Your task to perform on an android device: turn pop-ups on in chrome Image 0: 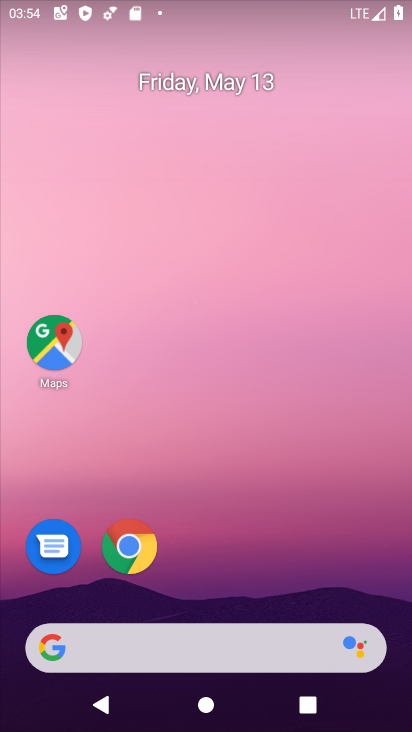
Step 0: click (128, 548)
Your task to perform on an android device: turn pop-ups on in chrome Image 1: 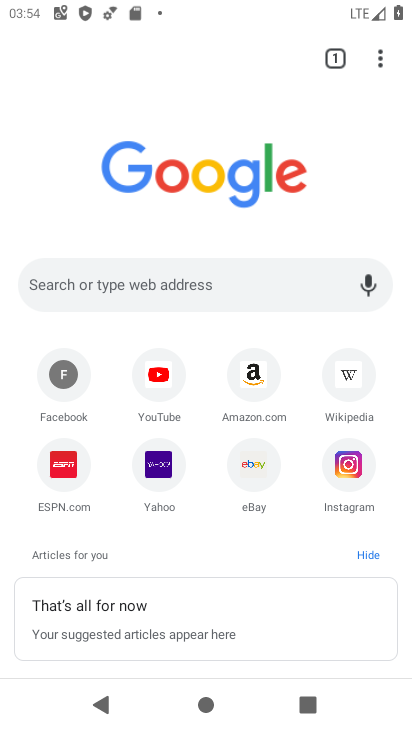
Step 1: click (370, 55)
Your task to perform on an android device: turn pop-ups on in chrome Image 2: 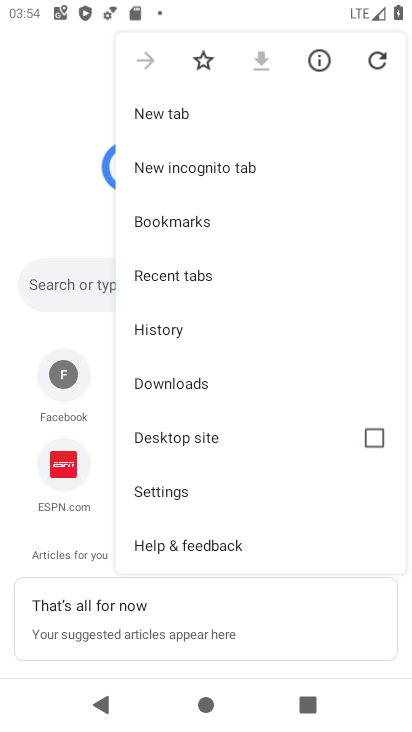
Step 2: click (190, 483)
Your task to perform on an android device: turn pop-ups on in chrome Image 3: 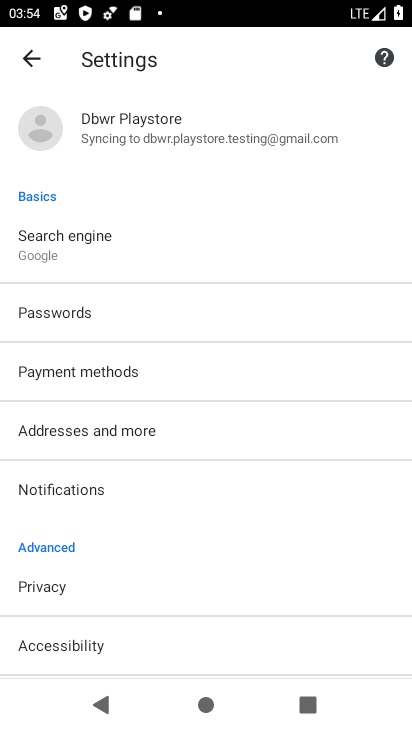
Step 3: drag from (144, 632) to (286, 73)
Your task to perform on an android device: turn pop-ups on in chrome Image 4: 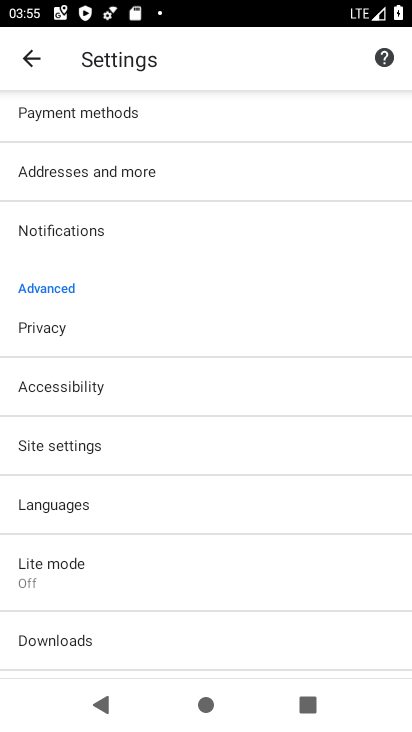
Step 4: click (123, 444)
Your task to perform on an android device: turn pop-ups on in chrome Image 5: 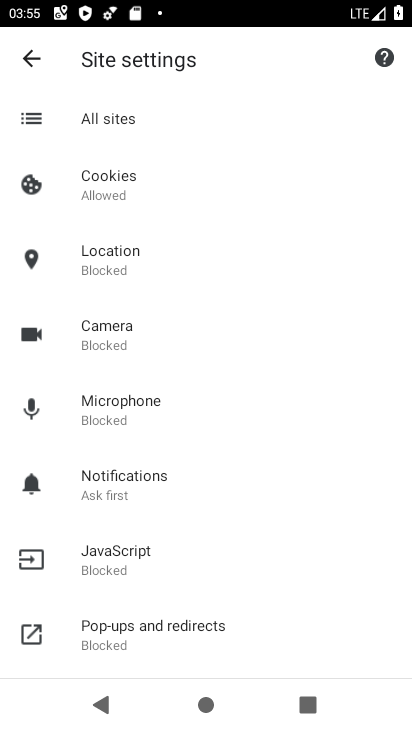
Step 5: drag from (54, 580) to (104, 196)
Your task to perform on an android device: turn pop-ups on in chrome Image 6: 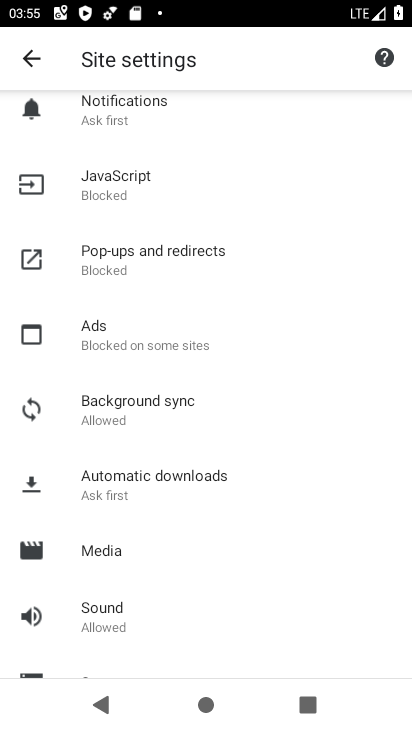
Step 6: click (154, 267)
Your task to perform on an android device: turn pop-ups on in chrome Image 7: 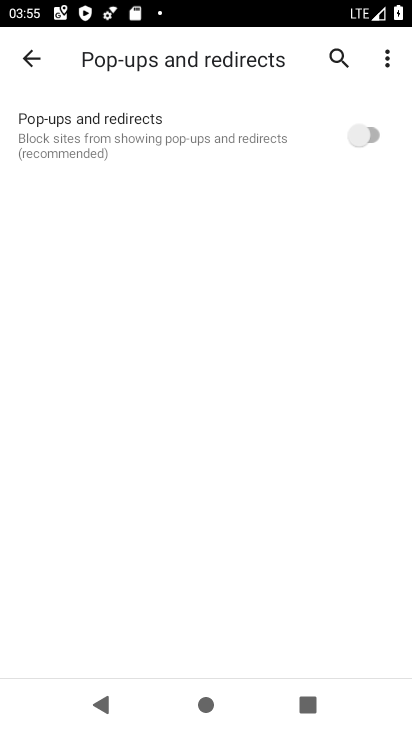
Step 7: click (370, 141)
Your task to perform on an android device: turn pop-ups on in chrome Image 8: 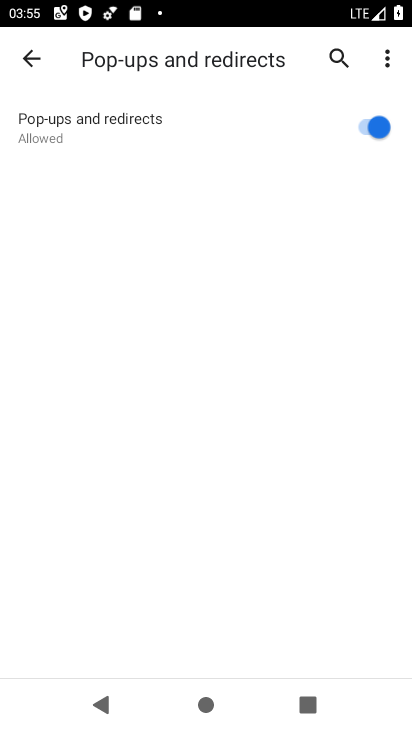
Step 8: task complete